Your task to perform on an android device: change the clock style Image 0: 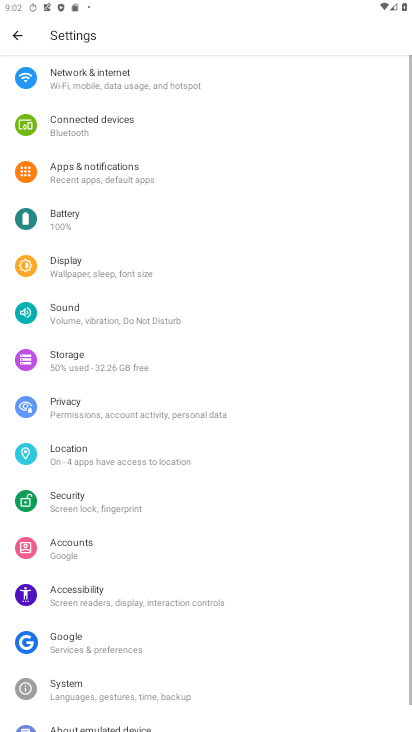
Step 0: press home button
Your task to perform on an android device: change the clock style Image 1: 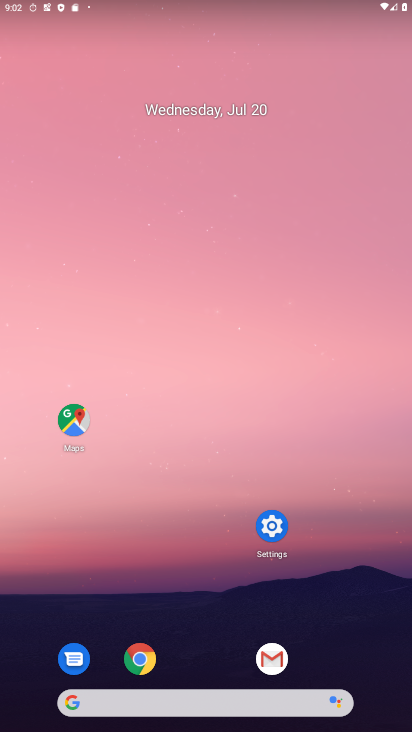
Step 1: drag from (253, 710) to (223, 212)
Your task to perform on an android device: change the clock style Image 2: 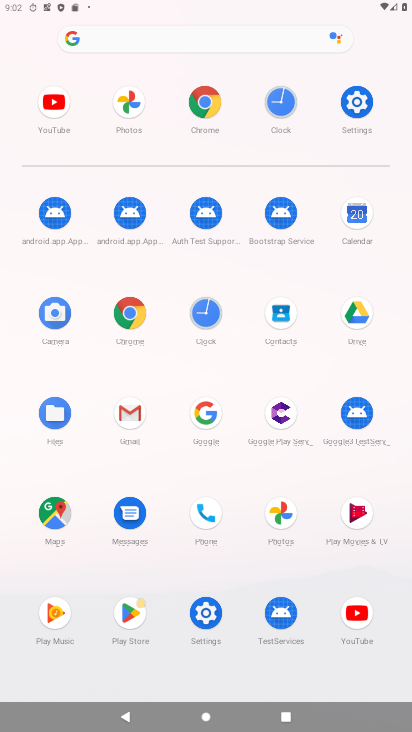
Step 2: click (276, 118)
Your task to perform on an android device: change the clock style Image 3: 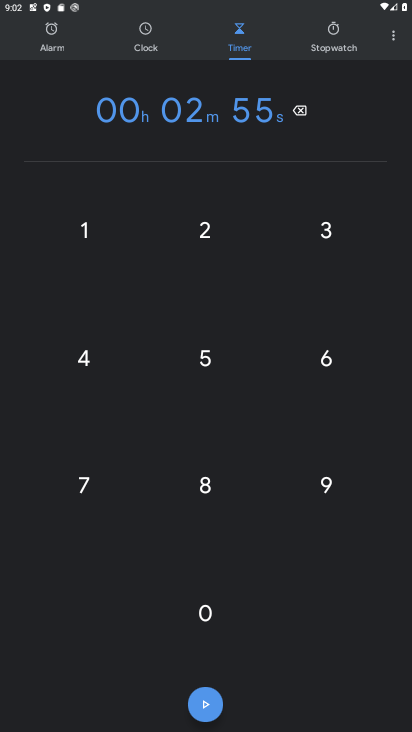
Step 3: click (387, 42)
Your task to perform on an android device: change the clock style Image 4: 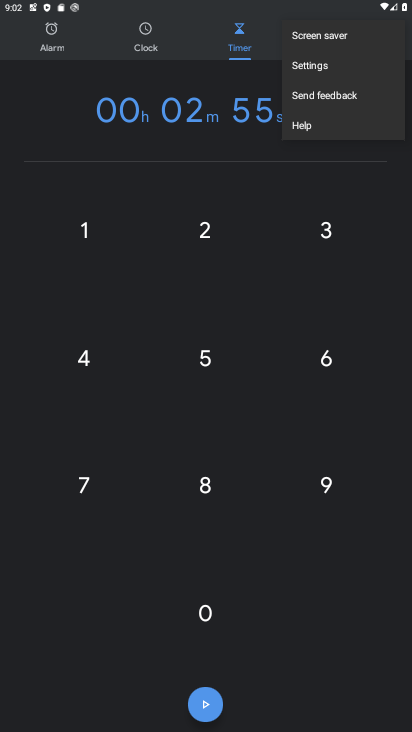
Step 4: click (314, 64)
Your task to perform on an android device: change the clock style Image 5: 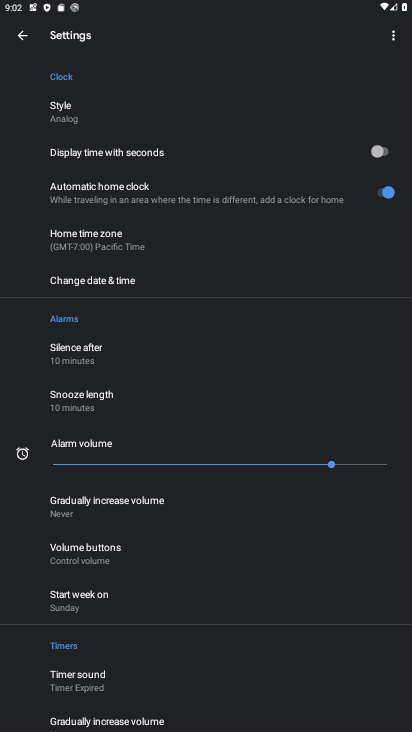
Step 5: click (115, 104)
Your task to perform on an android device: change the clock style Image 6: 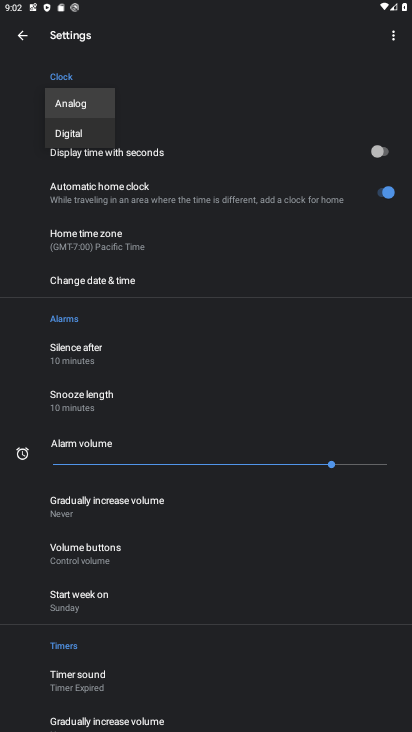
Step 6: click (84, 128)
Your task to perform on an android device: change the clock style Image 7: 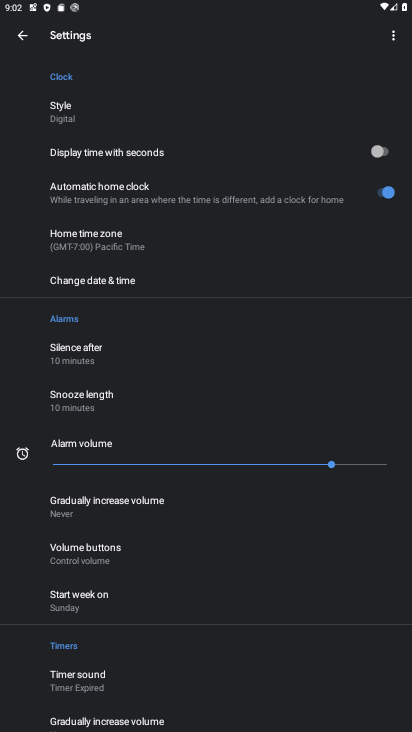
Step 7: task complete